Your task to perform on an android device: delete a single message in the gmail app Image 0: 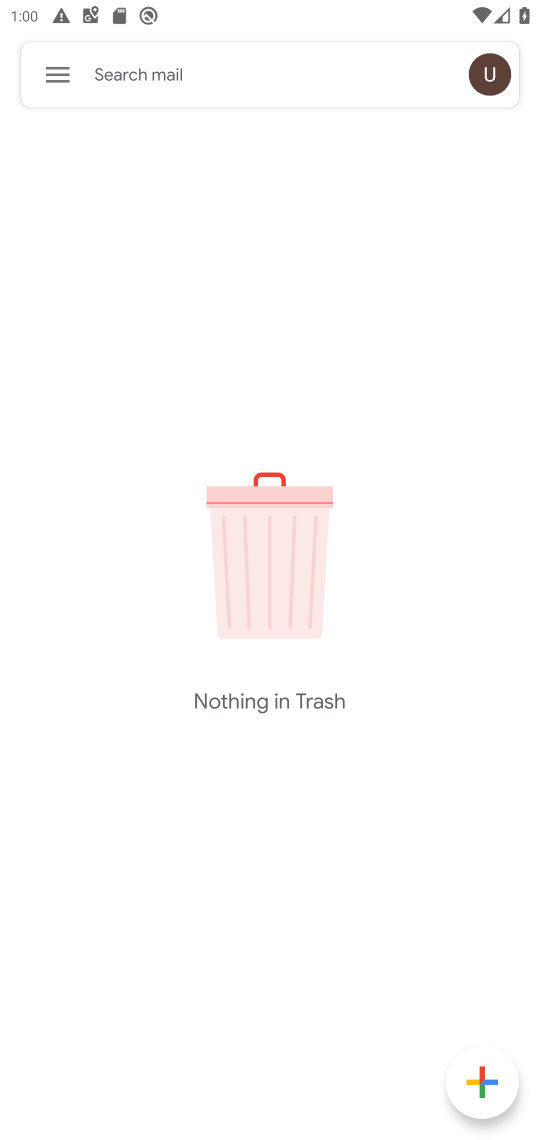
Step 0: click (45, 77)
Your task to perform on an android device: delete a single message in the gmail app Image 1: 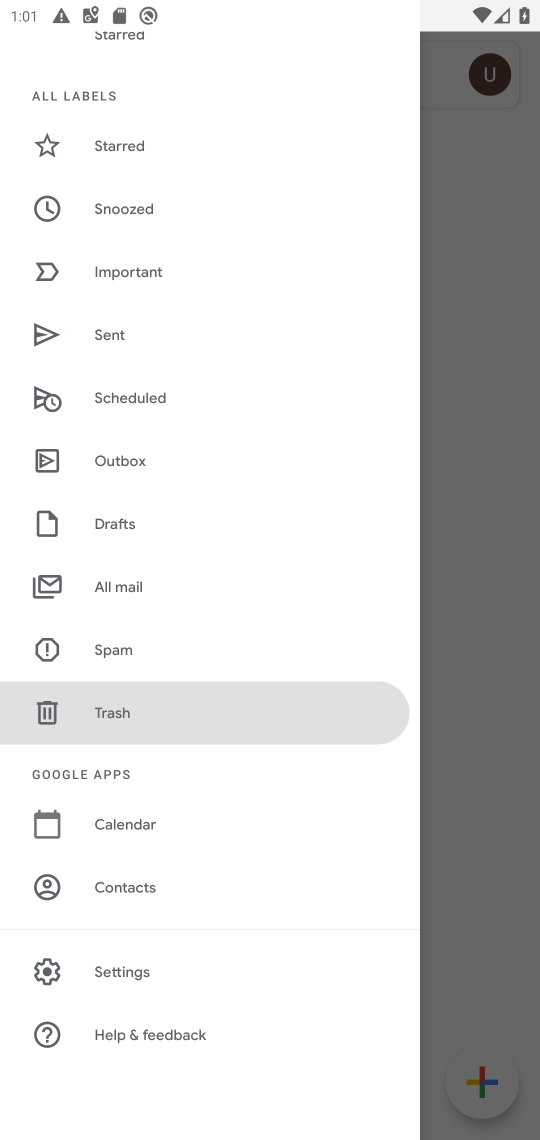
Step 1: click (137, 601)
Your task to perform on an android device: delete a single message in the gmail app Image 2: 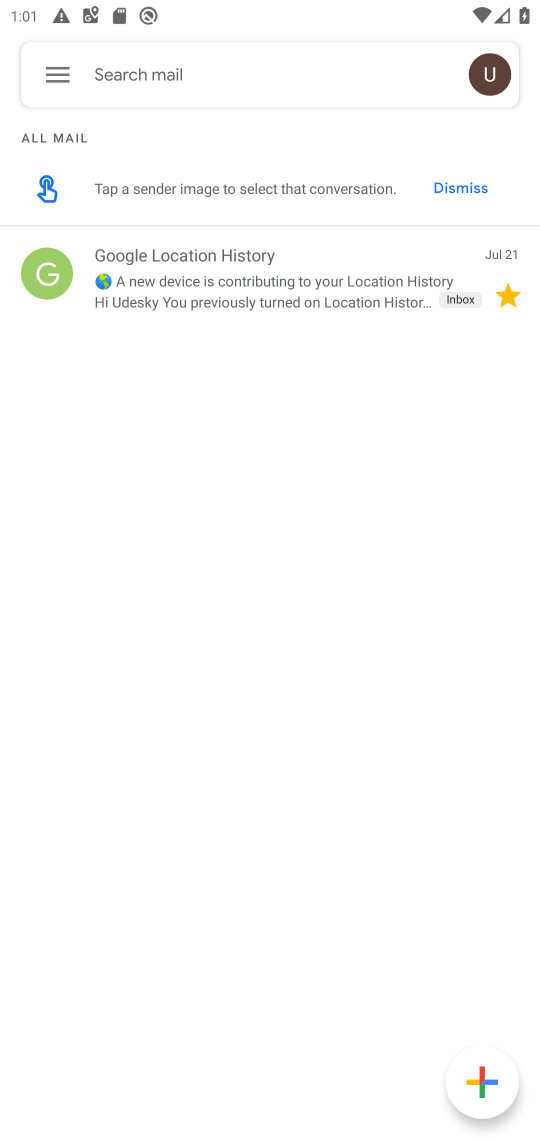
Step 2: click (244, 276)
Your task to perform on an android device: delete a single message in the gmail app Image 3: 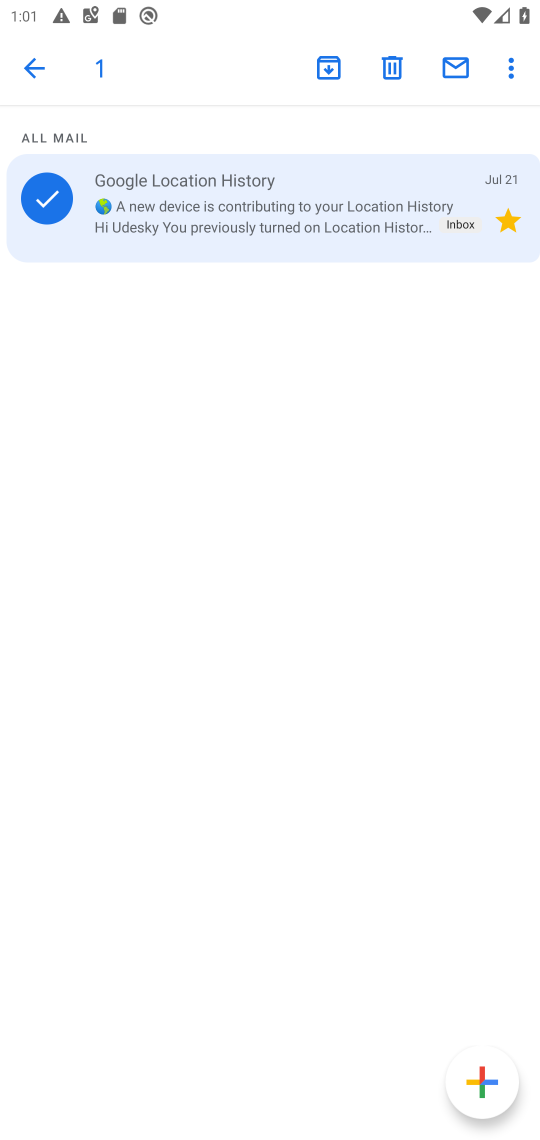
Step 3: click (401, 58)
Your task to perform on an android device: delete a single message in the gmail app Image 4: 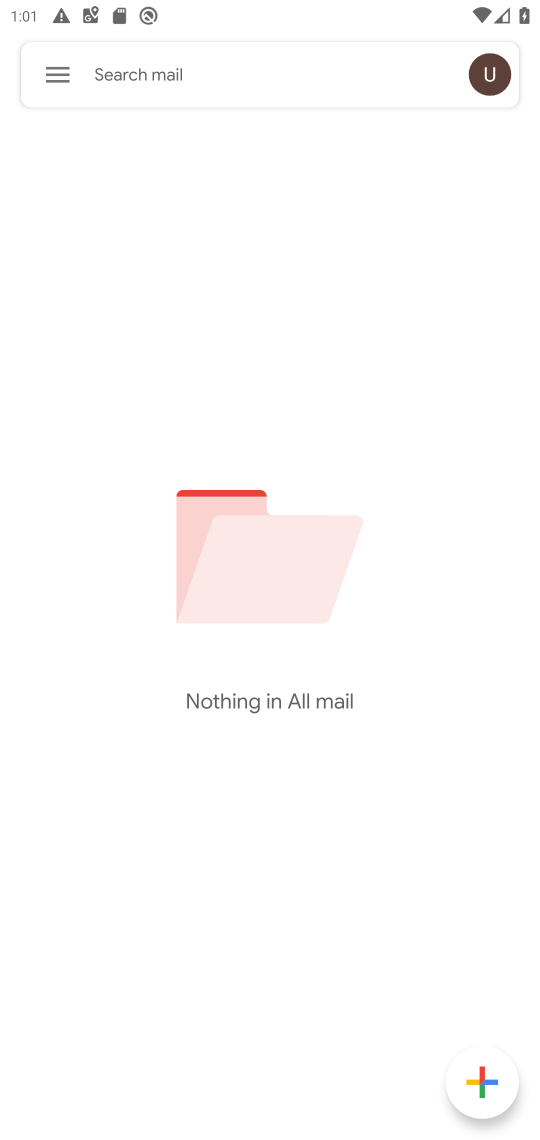
Step 4: task complete